Your task to perform on an android device: Open wifi settings Image 0: 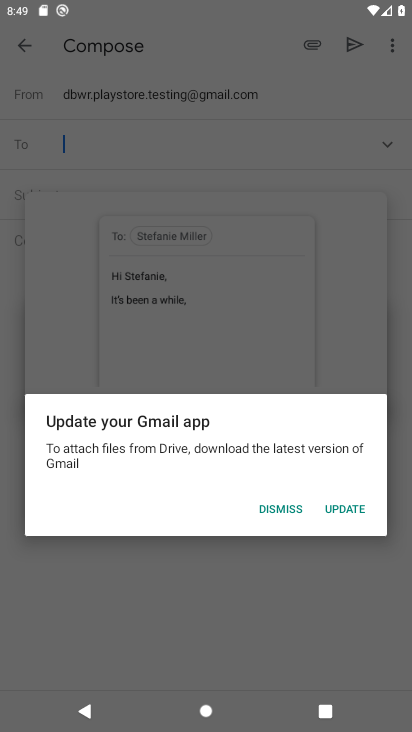
Step 0: press home button
Your task to perform on an android device: Open wifi settings Image 1: 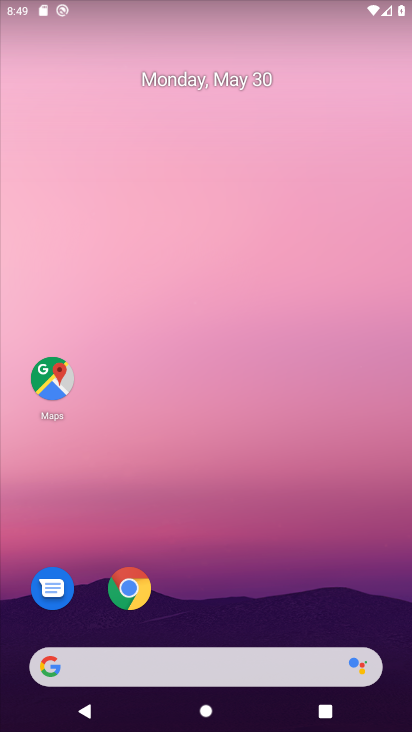
Step 1: drag from (300, 458) to (272, 257)
Your task to perform on an android device: Open wifi settings Image 2: 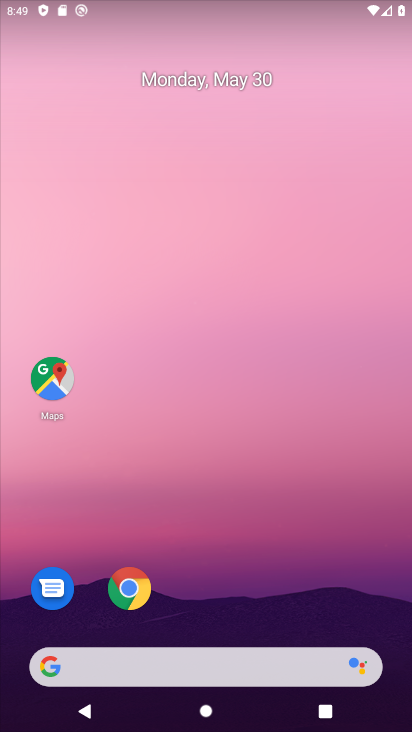
Step 2: drag from (340, 591) to (294, 244)
Your task to perform on an android device: Open wifi settings Image 3: 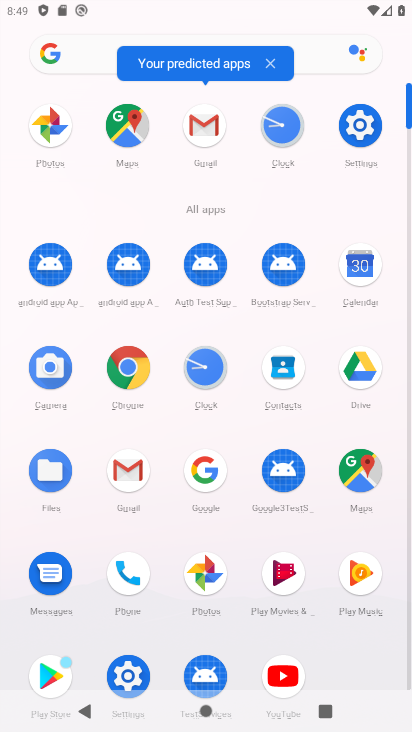
Step 3: click (360, 121)
Your task to perform on an android device: Open wifi settings Image 4: 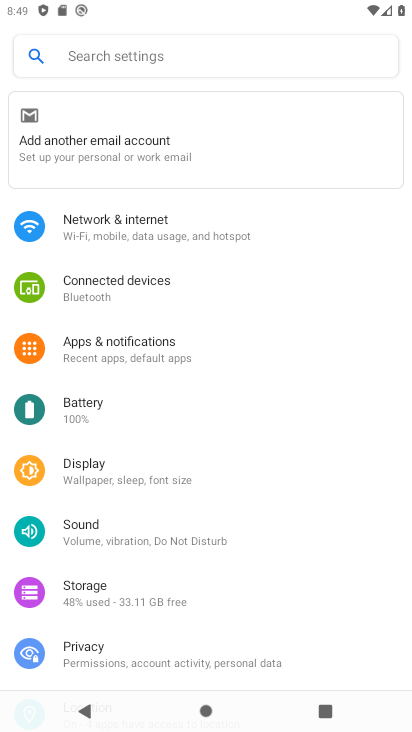
Step 4: click (141, 225)
Your task to perform on an android device: Open wifi settings Image 5: 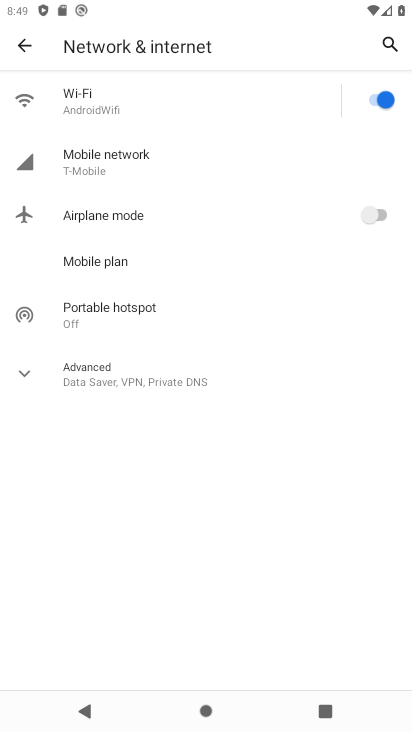
Step 5: click (201, 112)
Your task to perform on an android device: Open wifi settings Image 6: 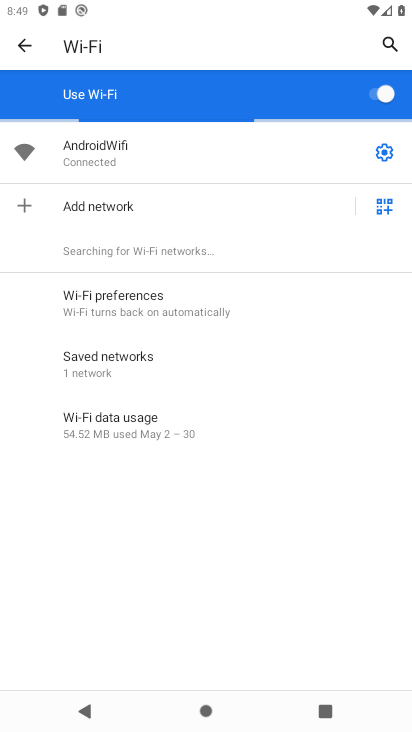
Step 6: click (394, 153)
Your task to perform on an android device: Open wifi settings Image 7: 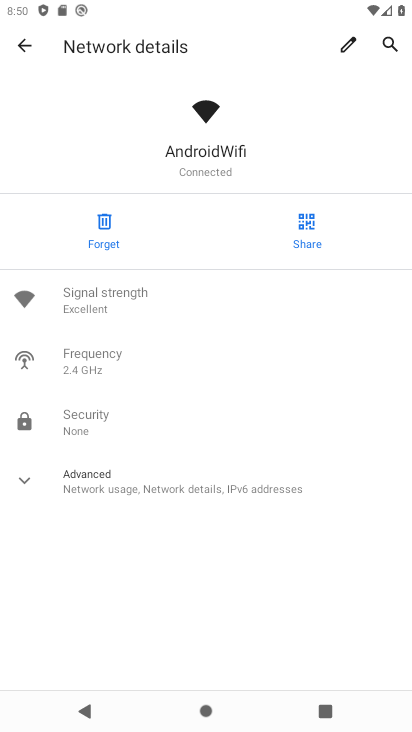
Step 7: task complete